Your task to perform on an android device: Search for vegetarian restaurants on Maps Image 0: 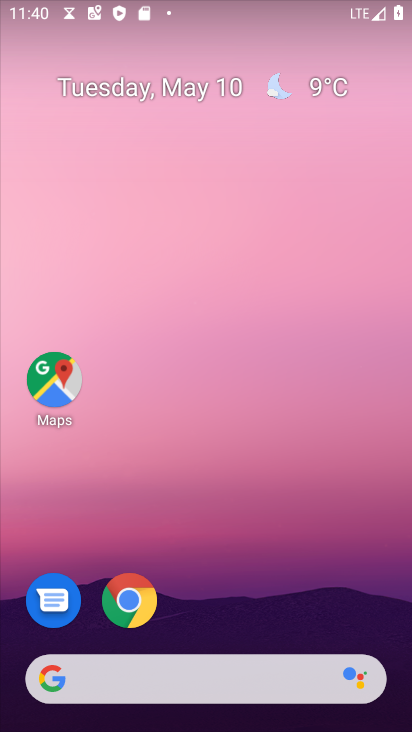
Step 0: click (45, 378)
Your task to perform on an android device: Search for vegetarian restaurants on Maps Image 1: 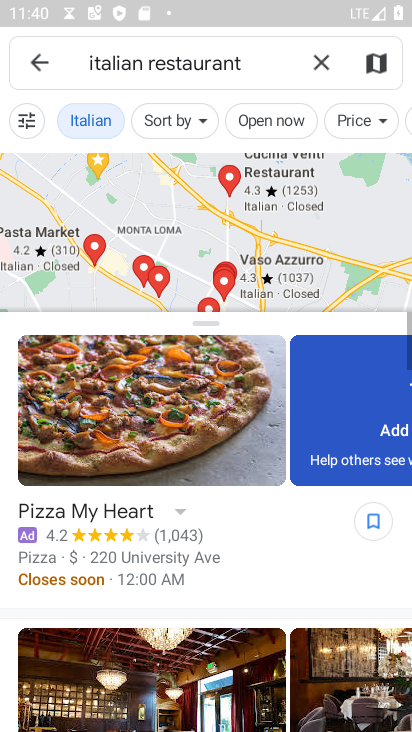
Step 1: click (311, 58)
Your task to perform on an android device: Search for vegetarian restaurants on Maps Image 2: 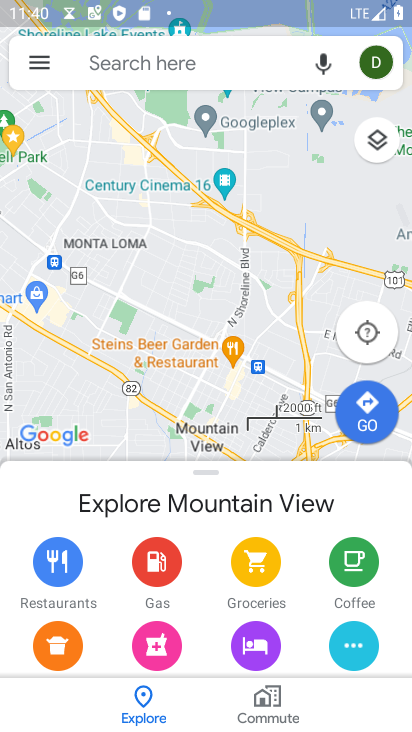
Step 2: click (135, 61)
Your task to perform on an android device: Search for vegetarian restaurants on Maps Image 3: 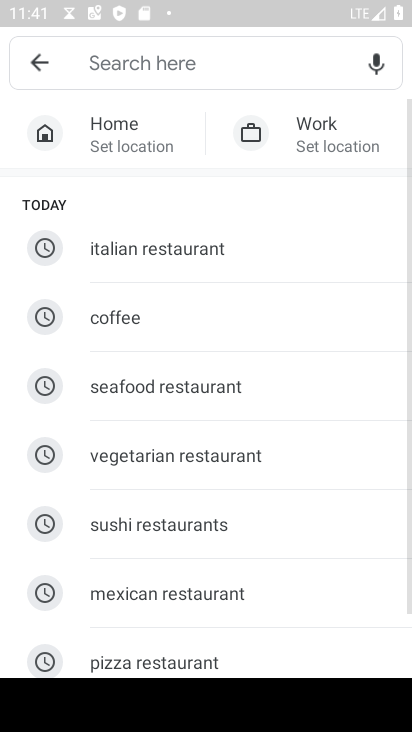
Step 3: click (201, 458)
Your task to perform on an android device: Search for vegetarian restaurants on Maps Image 4: 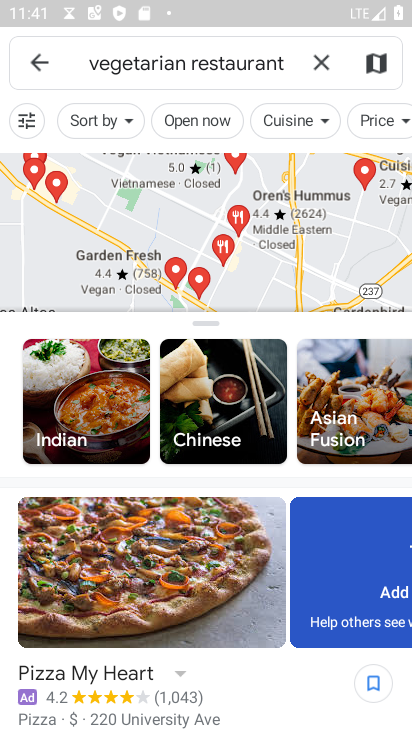
Step 4: task complete